Your task to perform on an android device: add a contact in the contacts app Image 0: 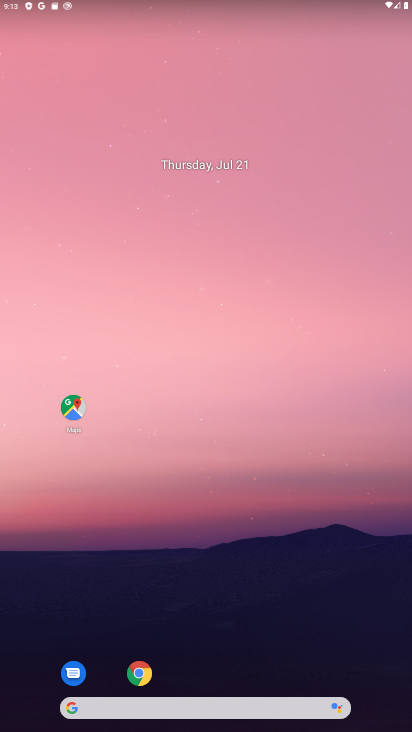
Step 0: press home button
Your task to perform on an android device: add a contact in the contacts app Image 1: 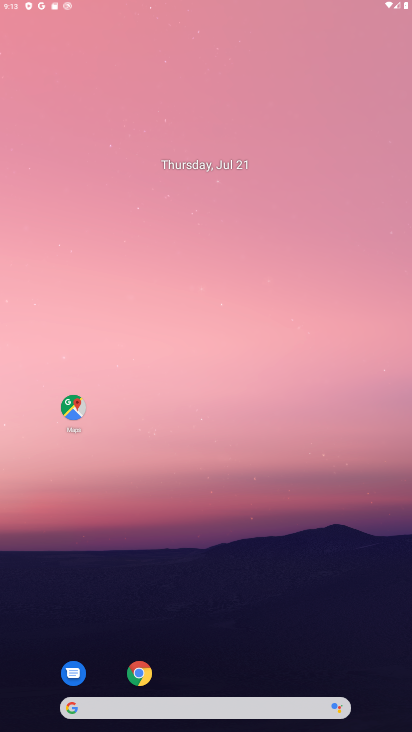
Step 1: drag from (207, 679) to (220, 135)
Your task to perform on an android device: add a contact in the contacts app Image 2: 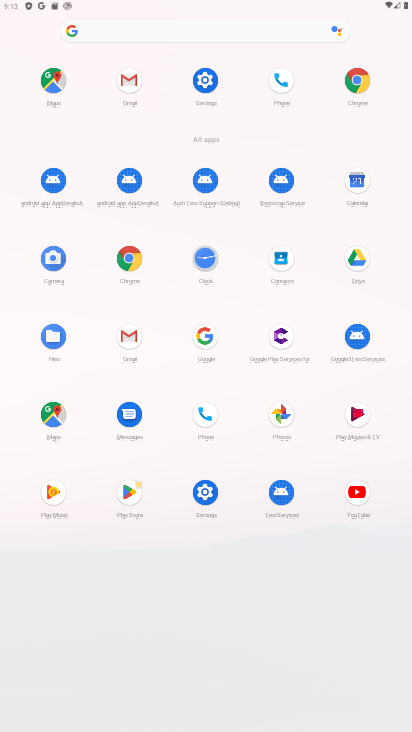
Step 2: click (276, 254)
Your task to perform on an android device: add a contact in the contacts app Image 3: 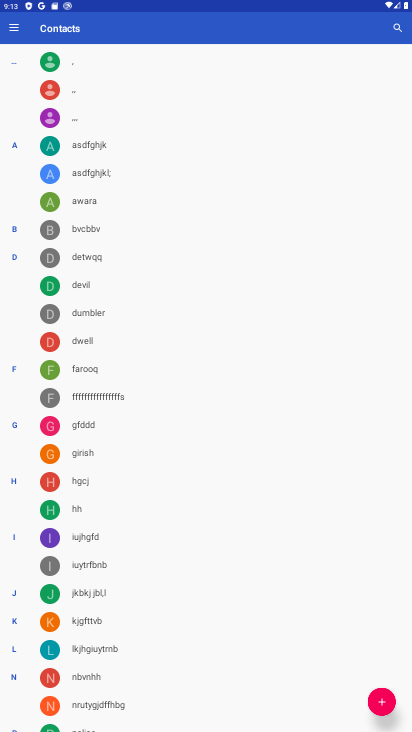
Step 3: click (378, 699)
Your task to perform on an android device: add a contact in the contacts app Image 4: 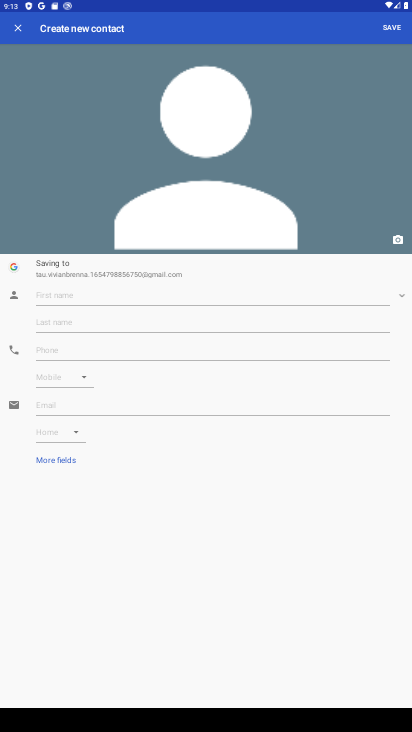
Step 4: click (49, 288)
Your task to perform on an android device: add a contact in the contacts app Image 5: 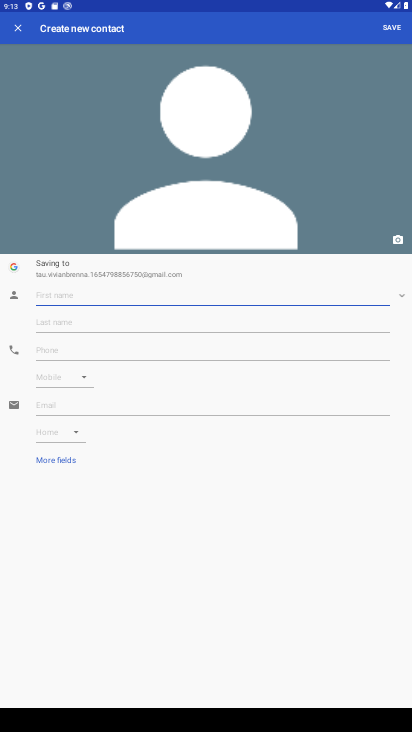
Step 5: type "jjjjjkkk"
Your task to perform on an android device: add a contact in the contacts app Image 6: 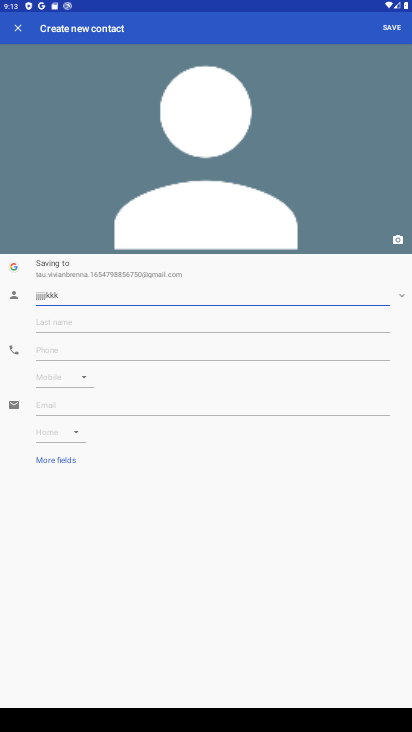
Step 6: click (392, 25)
Your task to perform on an android device: add a contact in the contacts app Image 7: 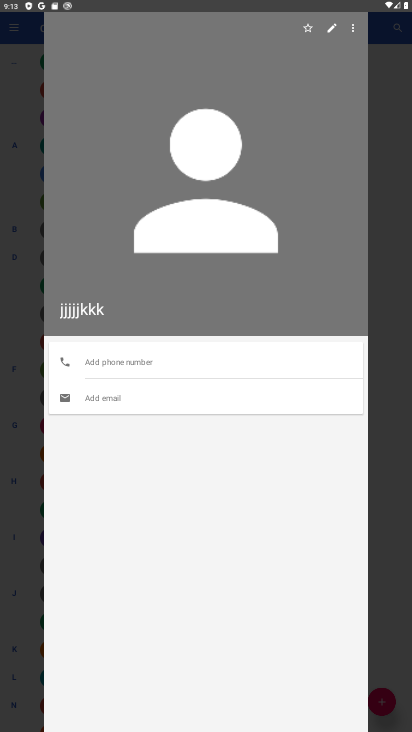
Step 7: task complete